Your task to perform on an android device: add a contact in the contacts app Image 0: 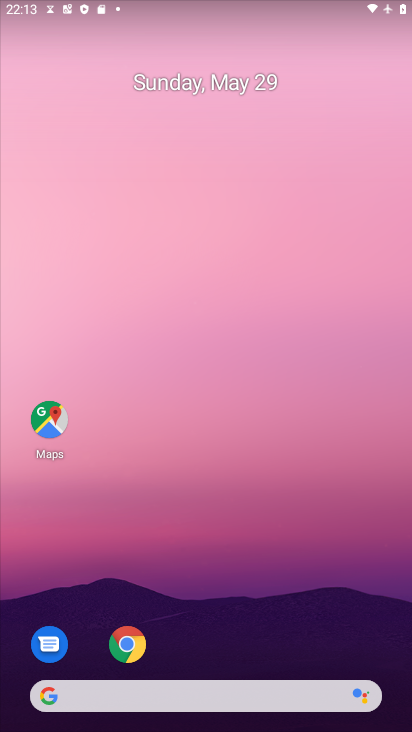
Step 0: click (245, 254)
Your task to perform on an android device: add a contact in the contacts app Image 1: 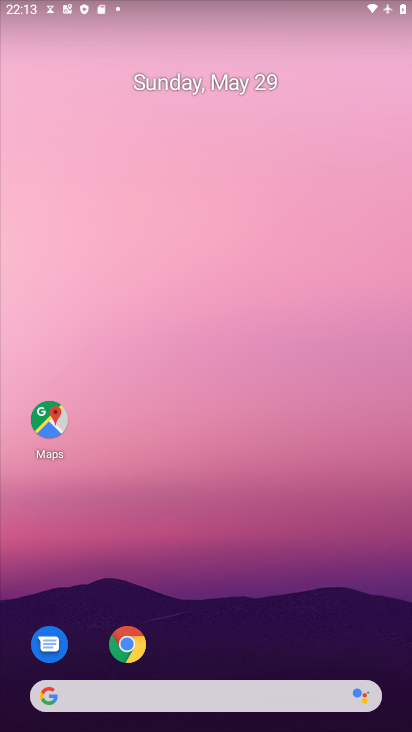
Step 1: drag from (208, 649) to (195, 215)
Your task to perform on an android device: add a contact in the contacts app Image 2: 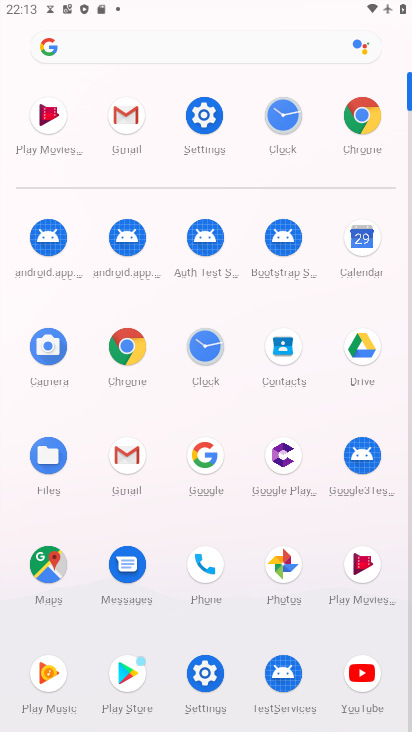
Step 2: click (202, 552)
Your task to perform on an android device: add a contact in the contacts app Image 3: 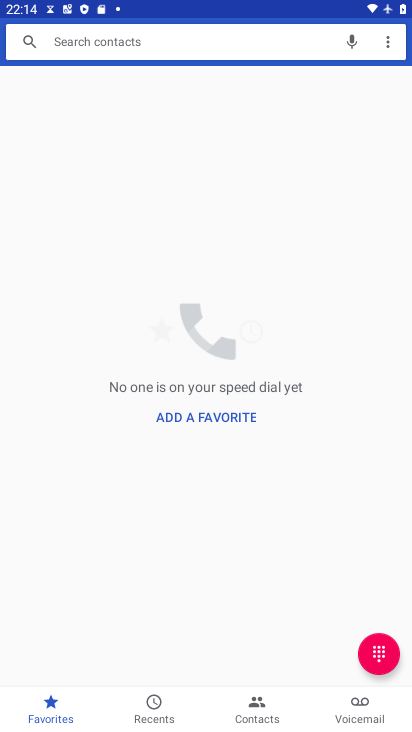
Step 3: click (175, 408)
Your task to perform on an android device: add a contact in the contacts app Image 4: 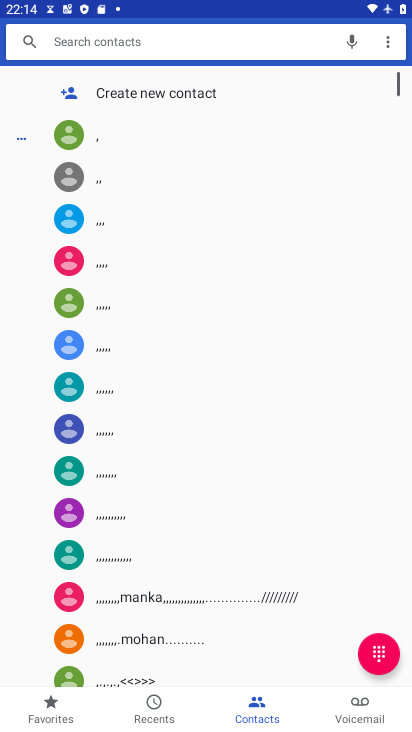
Step 4: click (142, 86)
Your task to perform on an android device: add a contact in the contacts app Image 5: 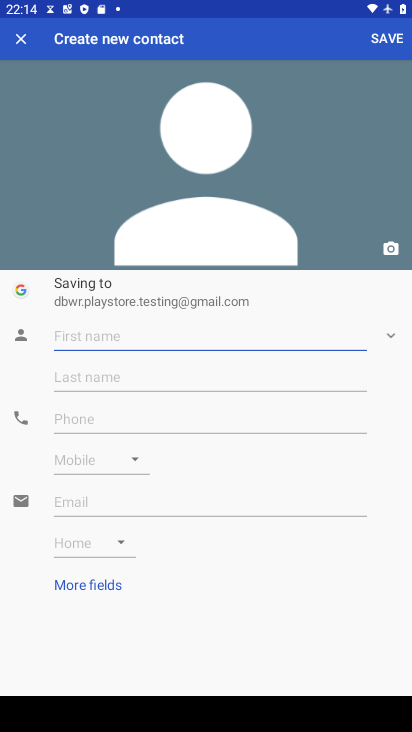
Step 5: type "ytyttttytytyt"
Your task to perform on an android device: add a contact in the contacts app Image 6: 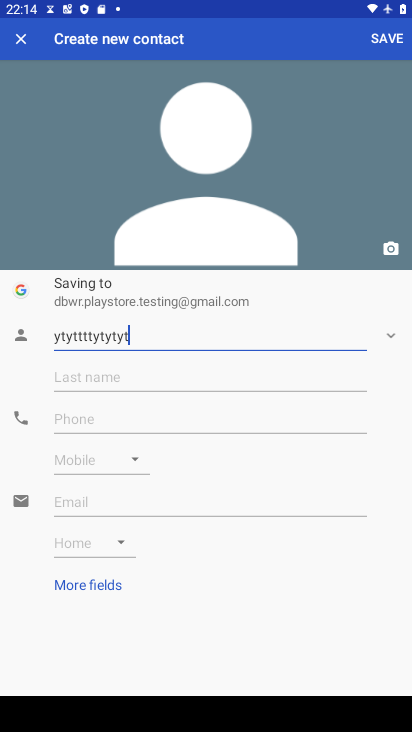
Step 6: click (86, 413)
Your task to perform on an android device: add a contact in the contacts app Image 7: 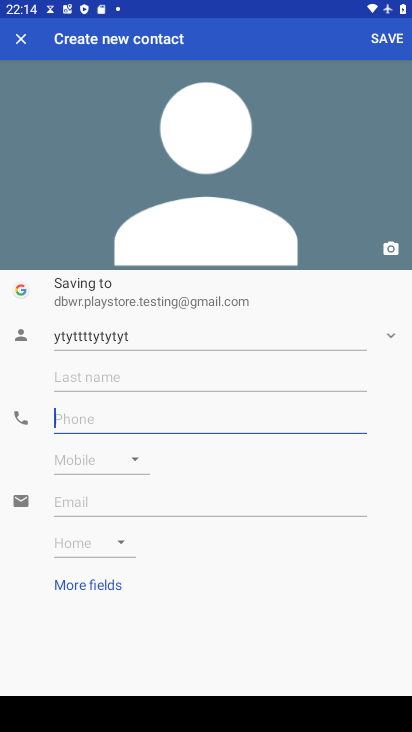
Step 7: type "56789"
Your task to perform on an android device: add a contact in the contacts app Image 8: 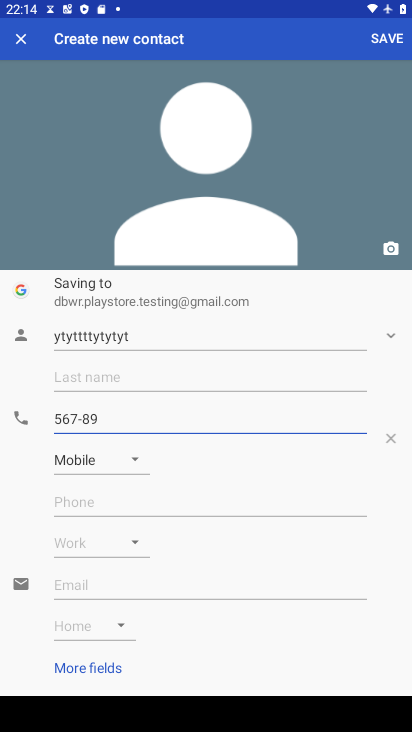
Step 8: click (387, 33)
Your task to perform on an android device: add a contact in the contacts app Image 9: 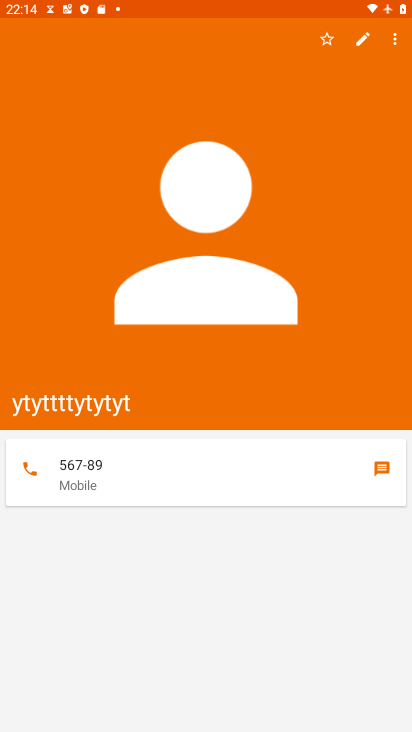
Step 9: task complete